Your task to perform on an android device: Open notification settings Image 0: 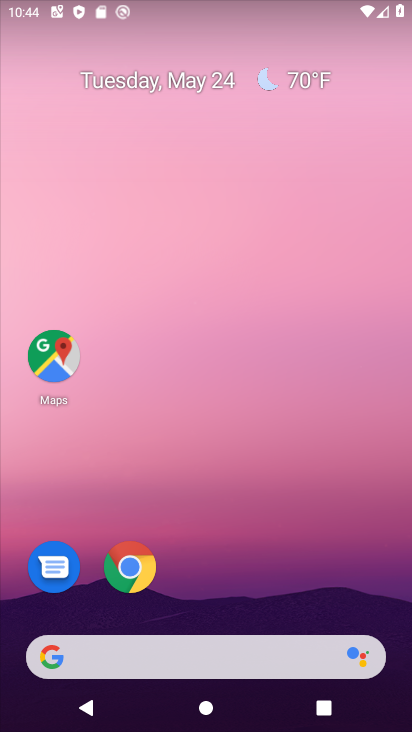
Step 0: drag from (384, 519) to (345, 249)
Your task to perform on an android device: Open notification settings Image 1: 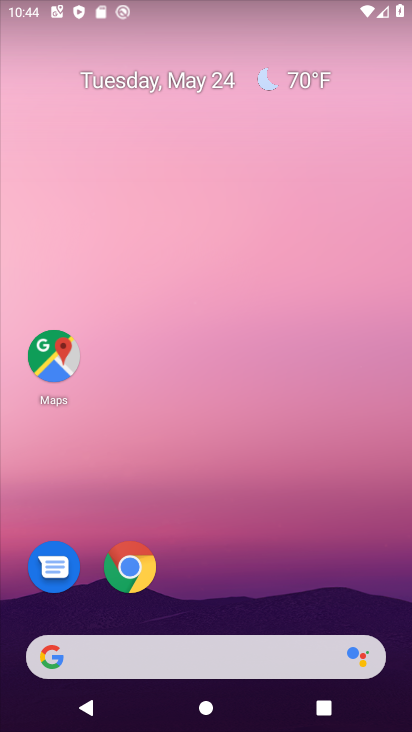
Step 1: drag from (405, 673) to (384, 190)
Your task to perform on an android device: Open notification settings Image 2: 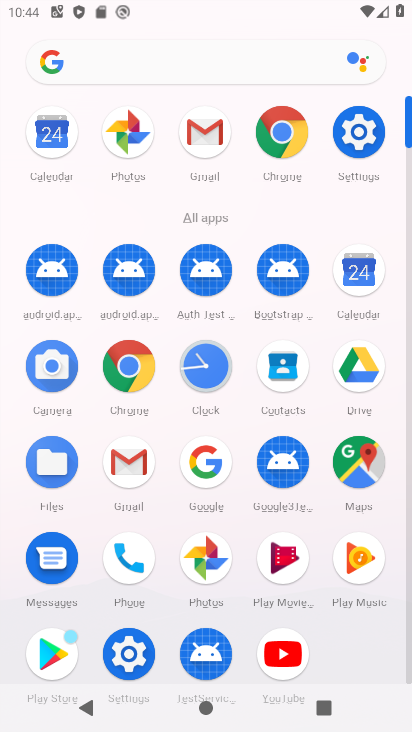
Step 2: click (367, 129)
Your task to perform on an android device: Open notification settings Image 3: 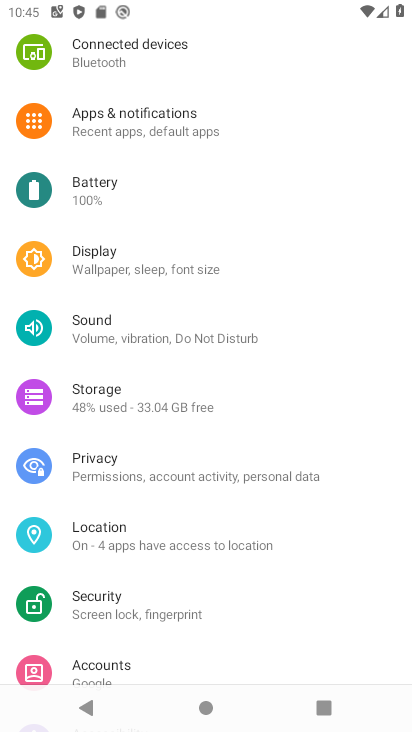
Step 3: drag from (332, 308) to (348, 381)
Your task to perform on an android device: Open notification settings Image 4: 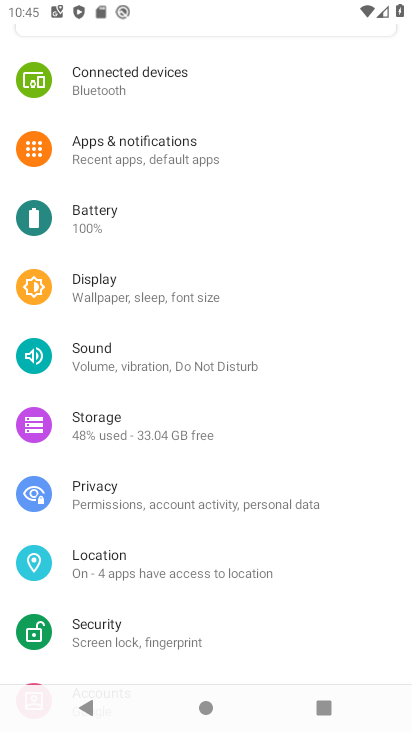
Step 4: click (115, 149)
Your task to perform on an android device: Open notification settings Image 5: 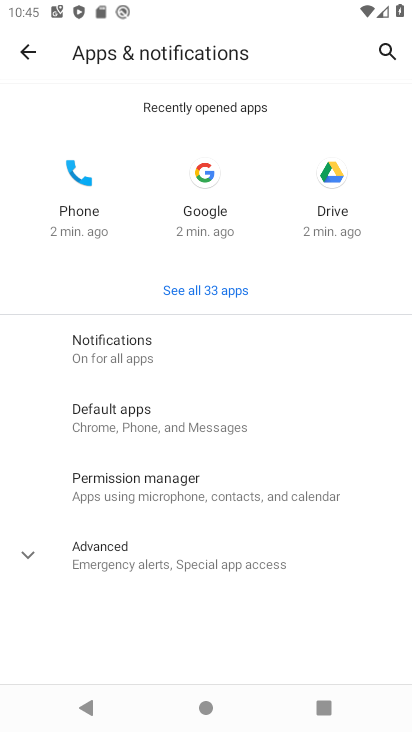
Step 5: click (94, 345)
Your task to perform on an android device: Open notification settings Image 6: 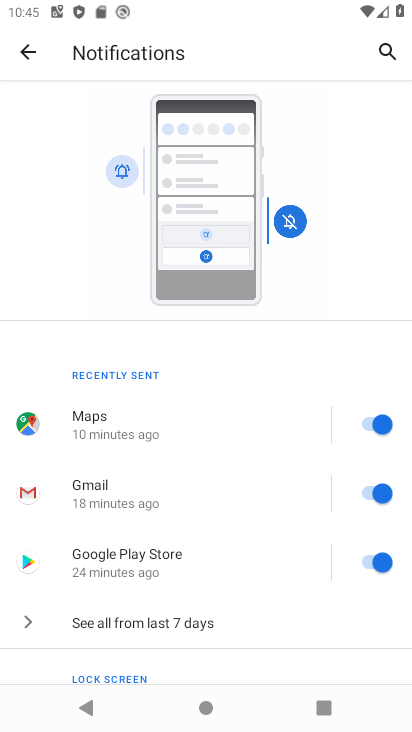
Step 6: drag from (275, 623) to (273, 292)
Your task to perform on an android device: Open notification settings Image 7: 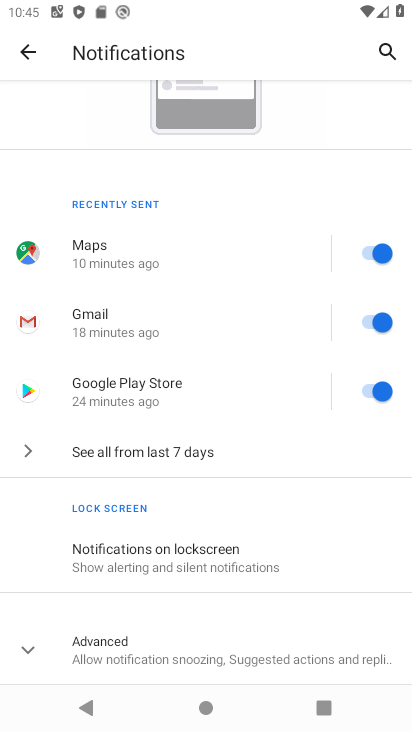
Step 7: click (21, 649)
Your task to perform on an android device: Open notification settings Image 8: 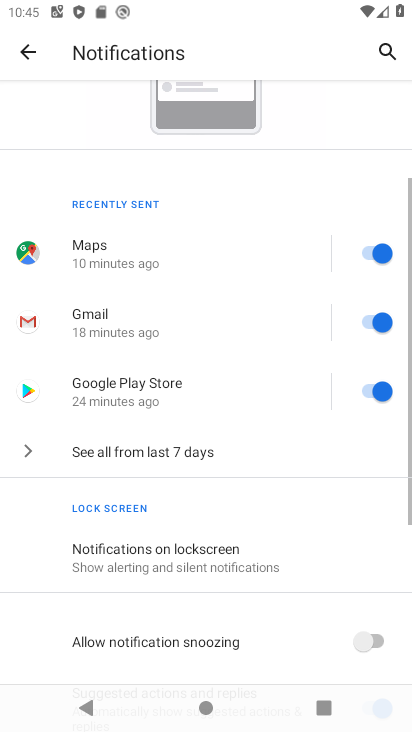
Step 8: task complete